Your task to perform on an android device: Check the news Image 0: 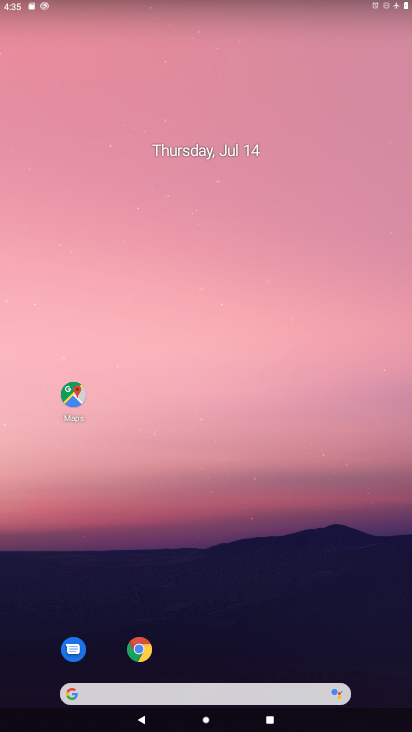
Step 0: click (407, 278)
Your task to perform on an android device: Check the news Image 1: 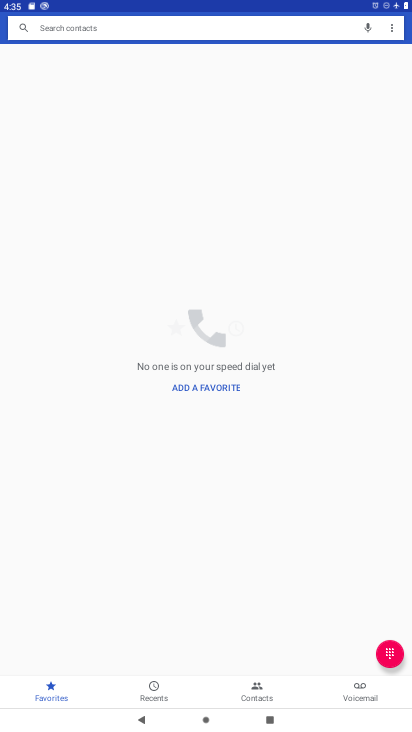
Step 1: press home button
Your task to perform on an android device: Check the news Image 2: 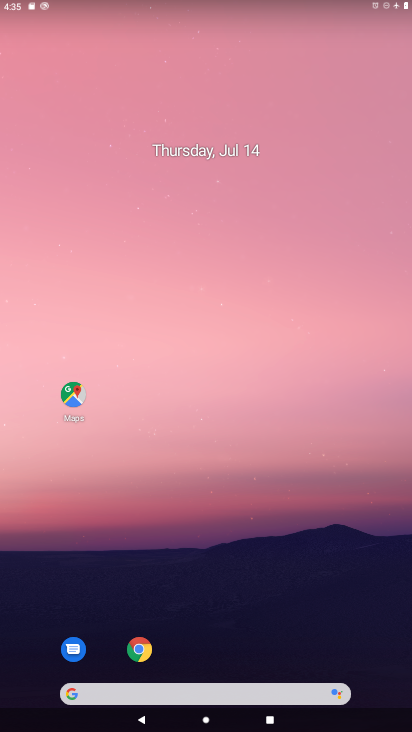
Step 2: drag from (242, 617) to (237, 29)
Your task to perform on an android device: Check the news Image 3: 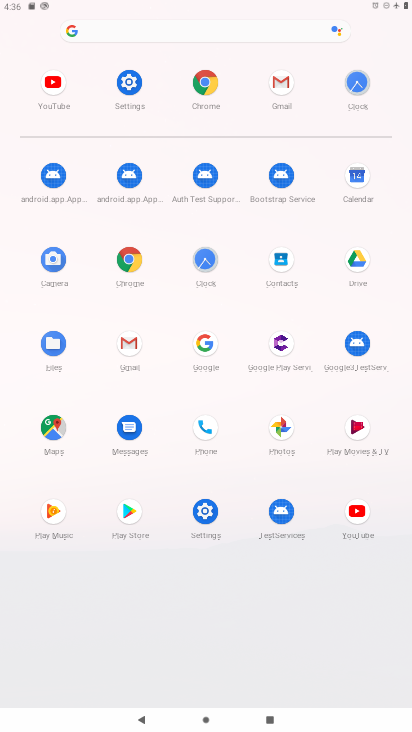
Step 3: click (199, 35)
Your task to perform on an android device: Check the news Image 4: 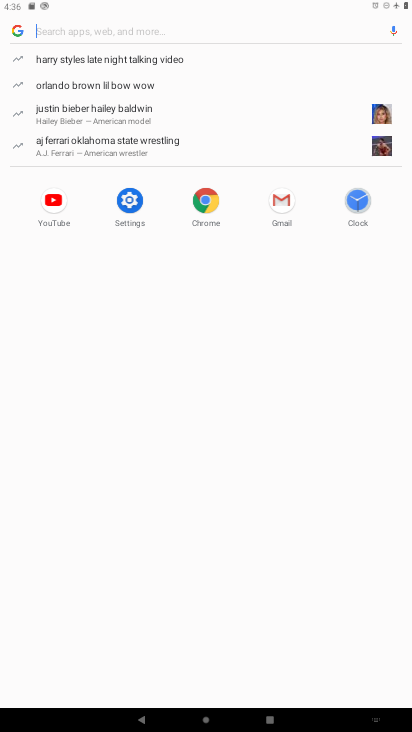
Step 4: type "news"
Your task to perform on an android device: Check the news Image 5: 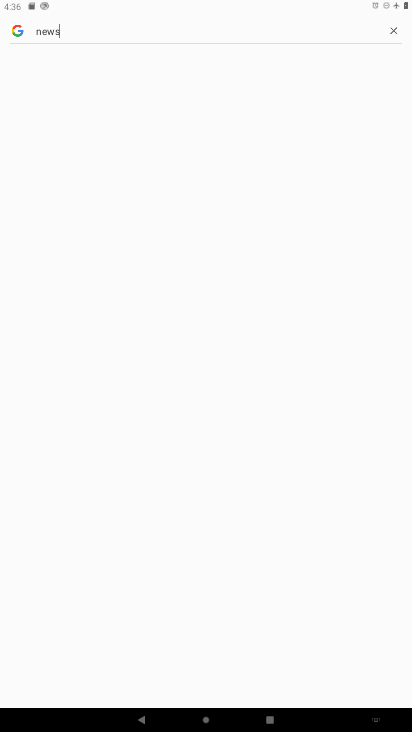
Step 5: click (222, 160)
Your task to perform on an android device: Check the news Image 6: 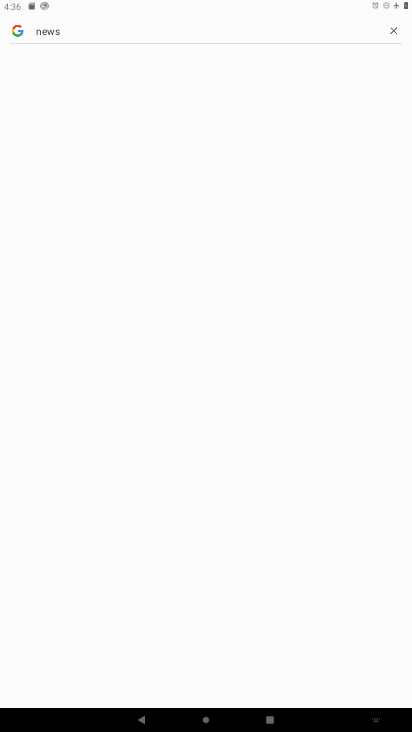
Step 6: task complete